Your task to perform on an android device: Find coffee shops on Maps Image 0: 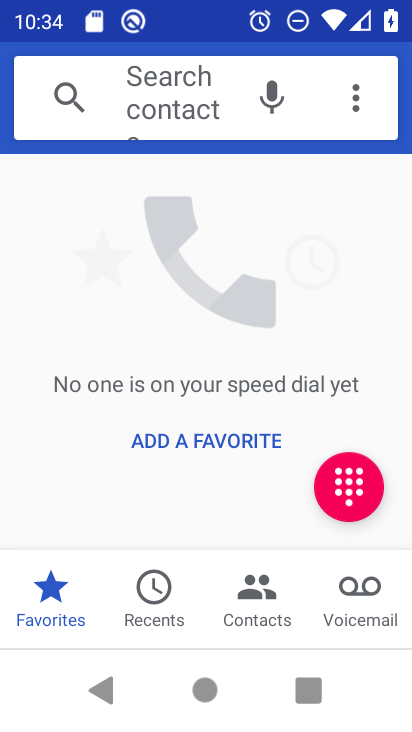
Step 0: press home button
Your task to perform on an android device: Find coffee shops on Maps Image 1: 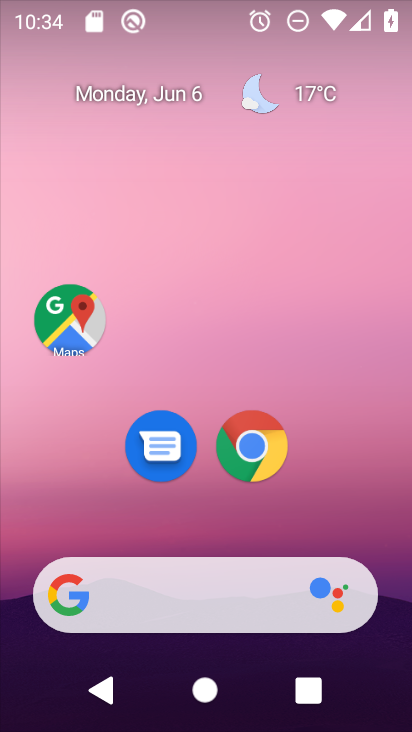
Step 1: click (44, 294)
Your task to perform on an android device: Find coffee shops on Maps Image 2: 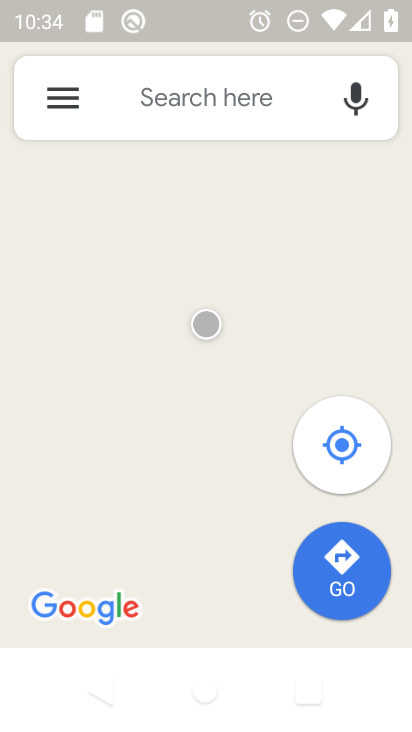
Step 2: click (210, 88)
Your task to perform on an android device: Find coffee shops on Maps Image 3: 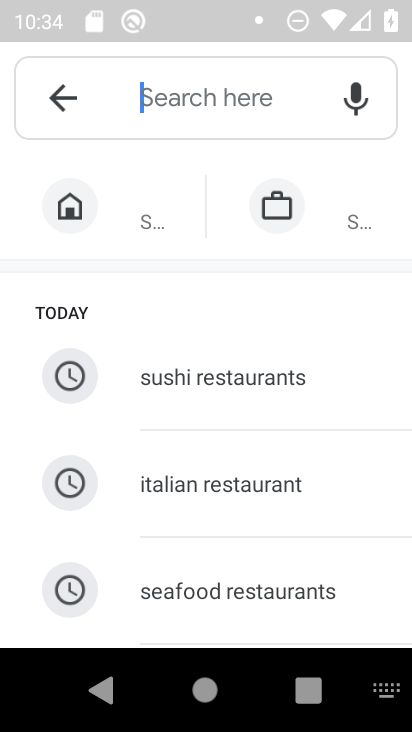
Step 3: type "coffee"
Your task to perform on an android device: Find coffee shops on Maps Image 4: 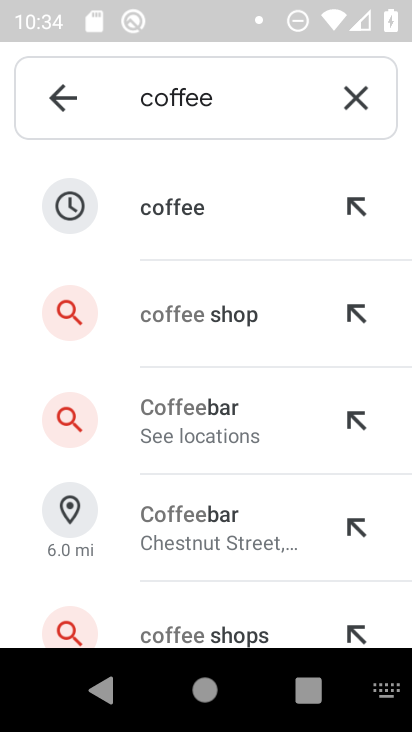
Step 4: click (125, 330)
Your task to perform on an android device: Find coffee shops on Maps Image 5: 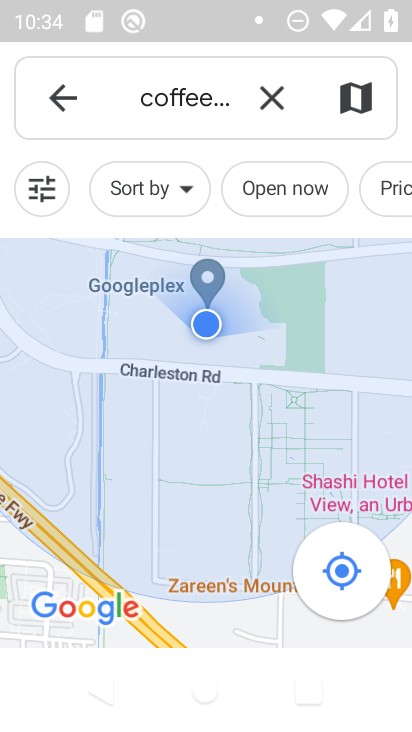
Step 5: task complete